Your task to perform on an android device: Add jbl charge 4 to the cart on bestbuy, then select checkout. Image 0: 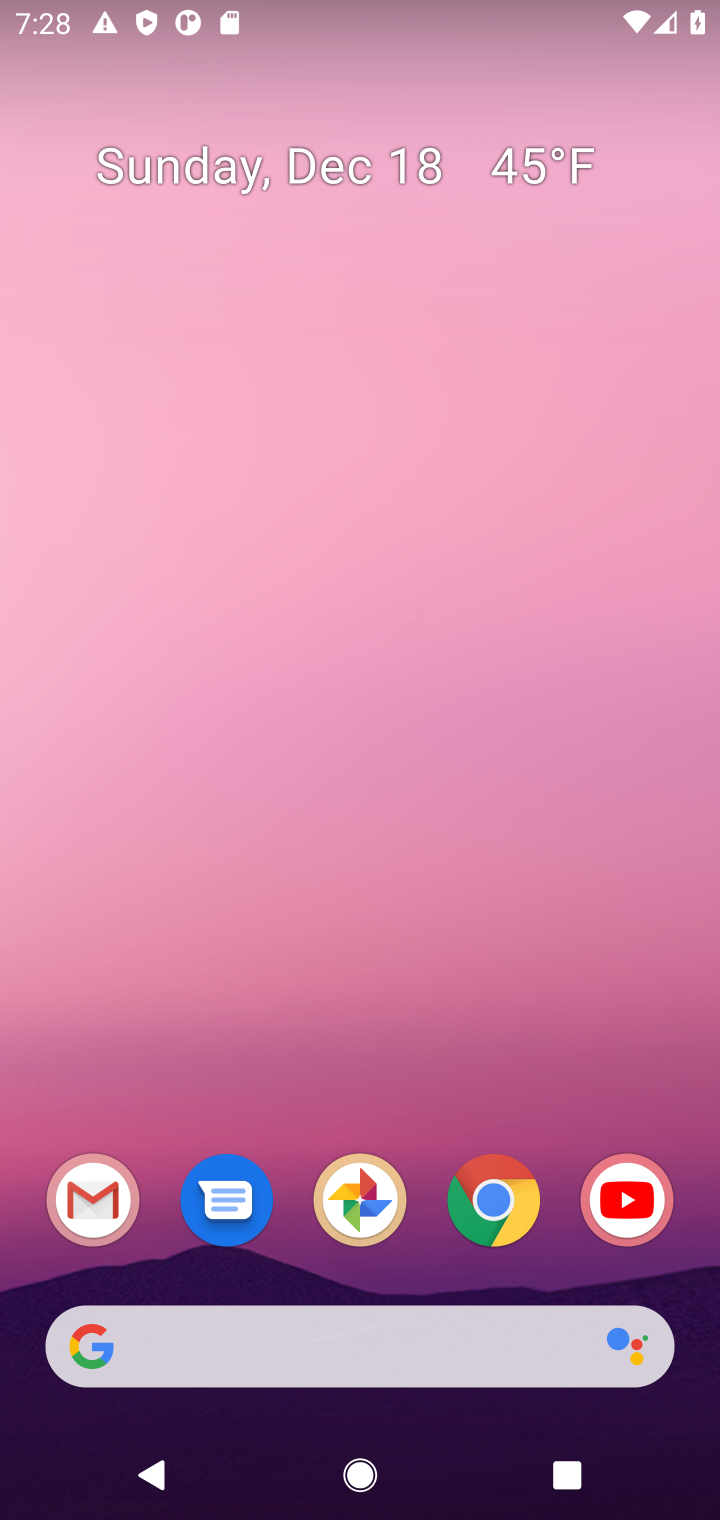
Step 0: click (484, 1216)
Your task to perform on an android device: Add jbl charge 4 to the cart on bestbuy, then select checkout. Image 1: 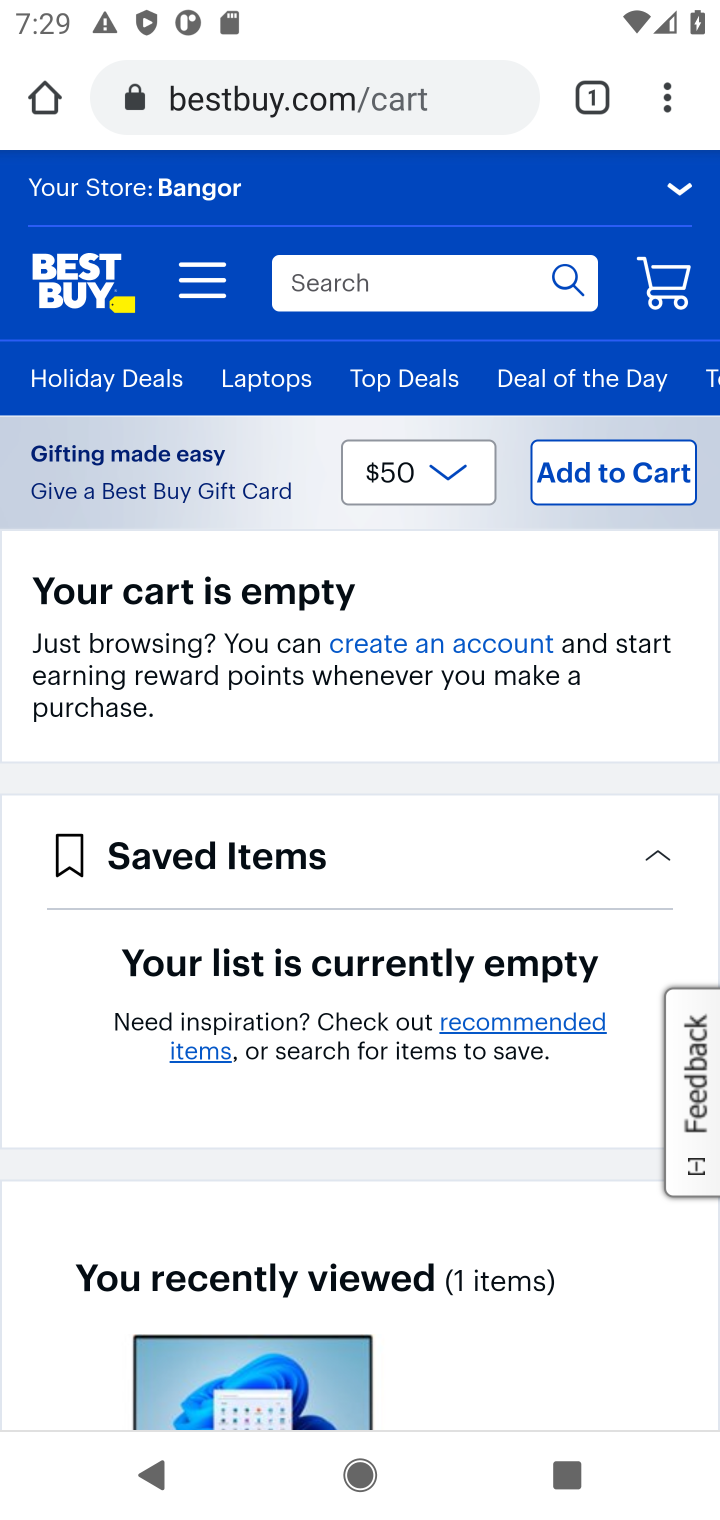
Step 1: click (323, 280)
Your task to perform on an android device: Add jbl charge 4 to the cart on bestbuy, then select checkout. Image 2: 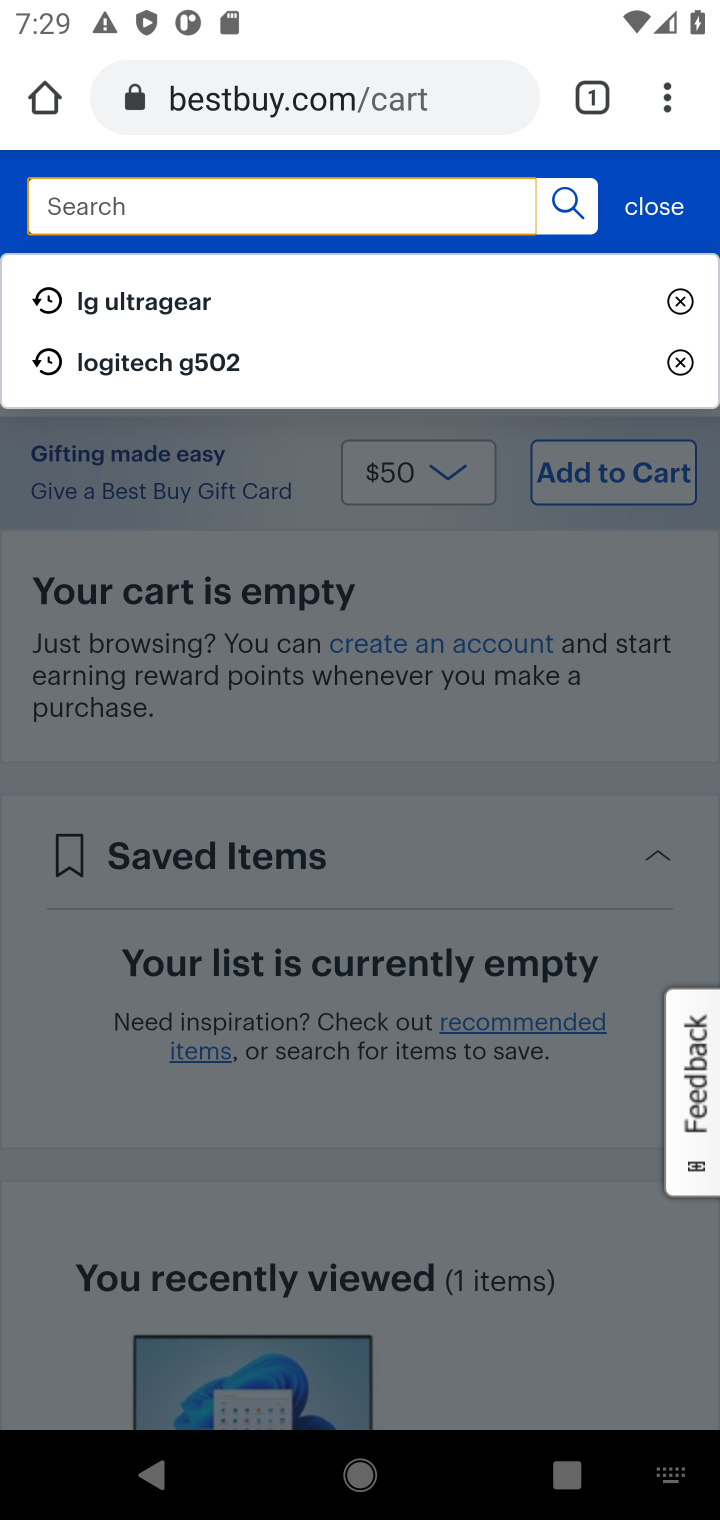
Step 2: type " jbl charge 4"
Your task to perform on an android device: Add jbl charge 4 to the cart on bestbuy, then select checkout. Image 3: 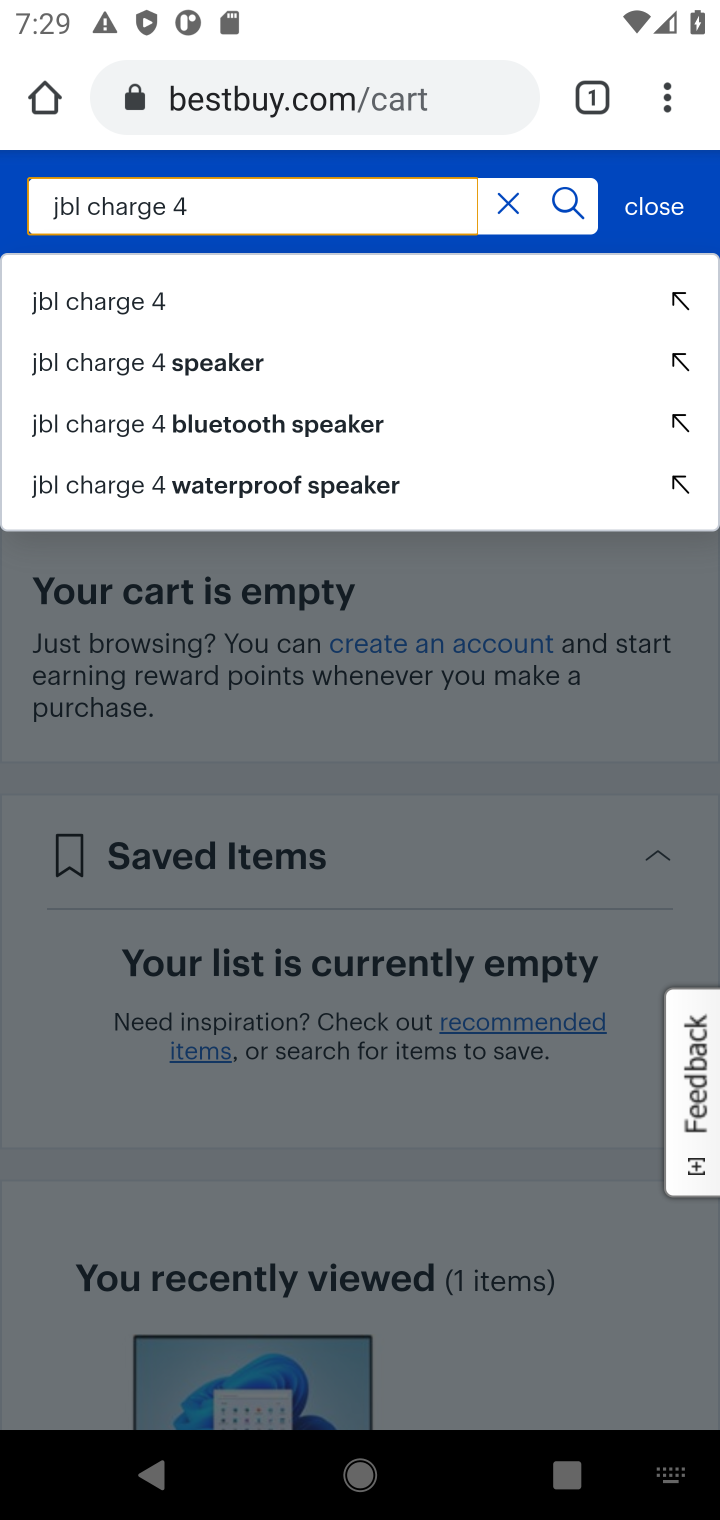
Step 3: click (124, 304)
Your task to perform on an android device: Add jbl charge 4 to the cart on bestbuy, then select checkout. Image 4: 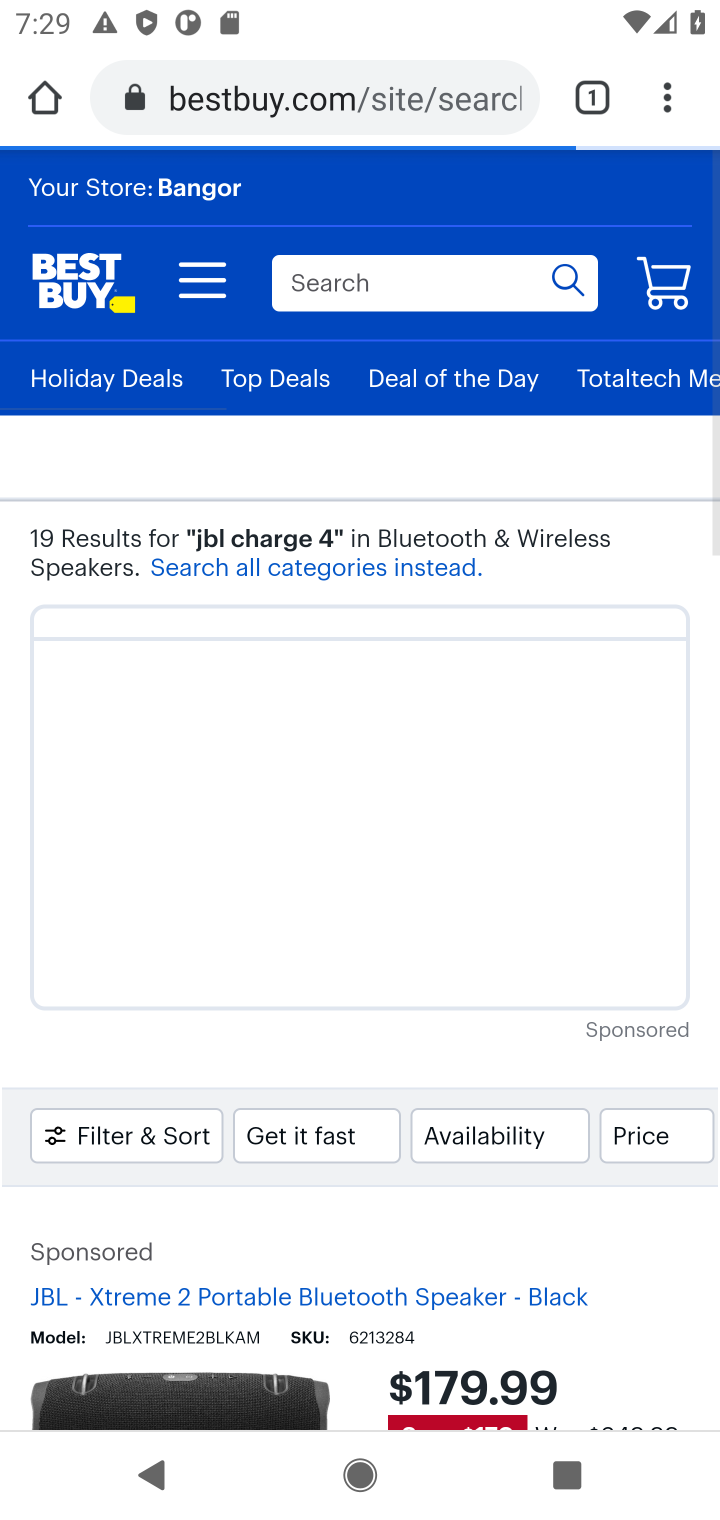
Step 4: click (577, 196)
Your task to perform on an android device: Add jbl charge 4 to the cart on bestbuy, then select checkout. Image 5: 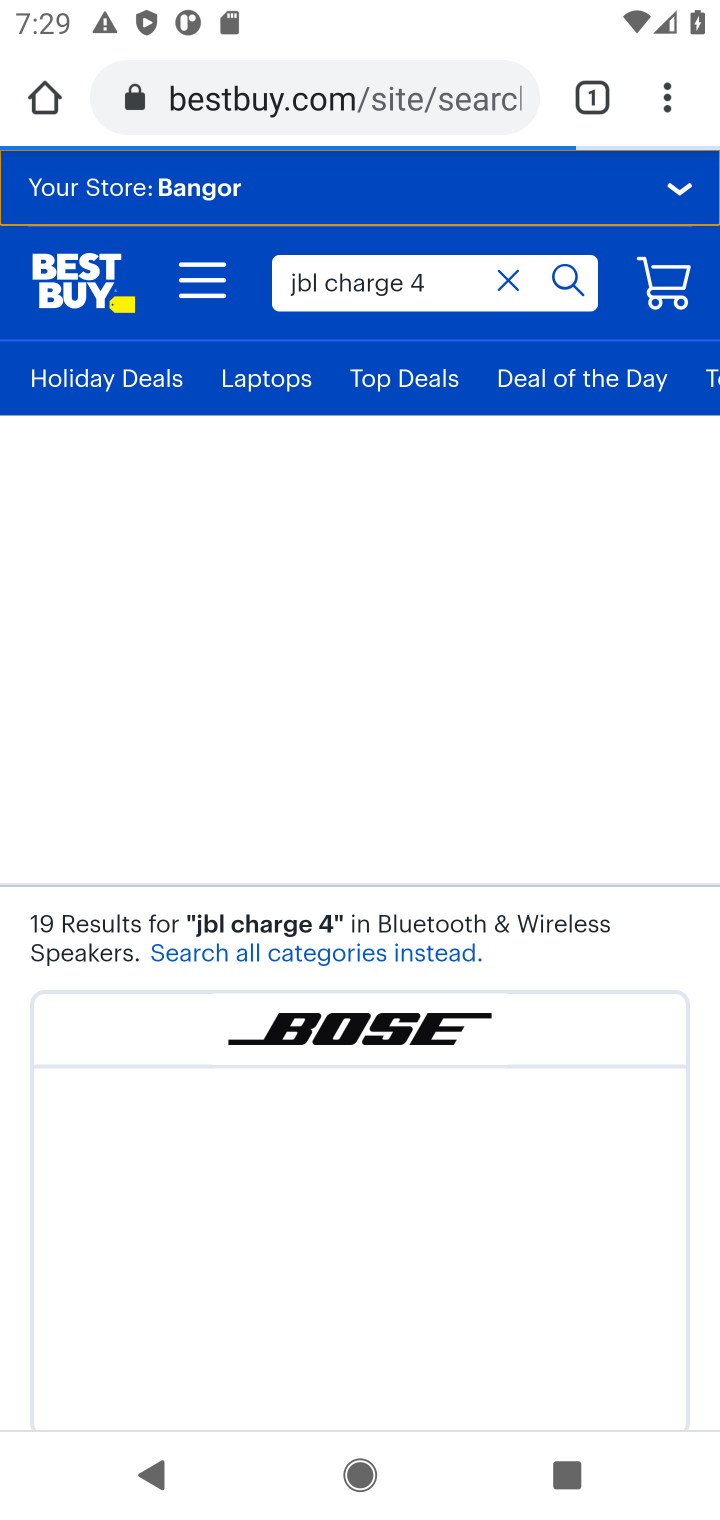
Step 5: task complete